Your task to perform on an android device: What's the US dollar exchange rate against the Australian Dollar? Image 0: 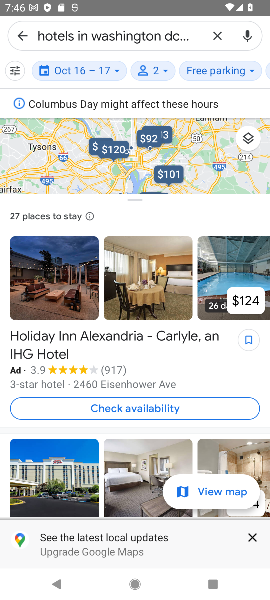
Step 0: press home button
Your task to perform on an android device: What's the US dollar exchange rate against the Australian Dollar? Image 1: 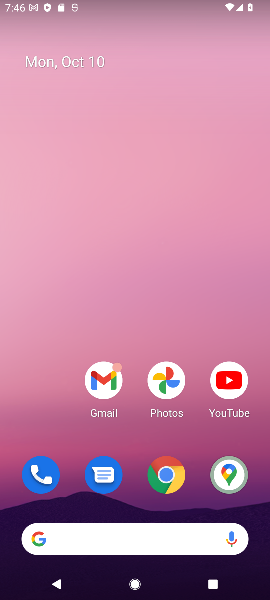
Step 1: click (174, 484)
Your task to perform on an android device: What's the US dollar exchange rate against the Australian Dollar? Image 2: 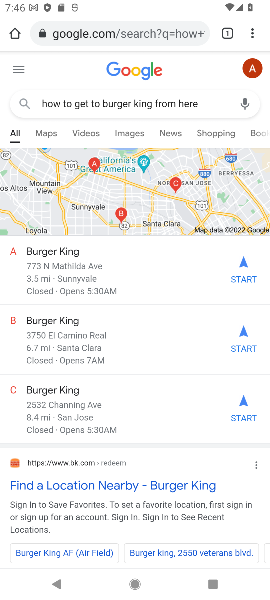
Step 2: click (110, 32)
Your task to perform on an android device: What's the US dollar exchange rate against the Australian Dollar? Image 3: 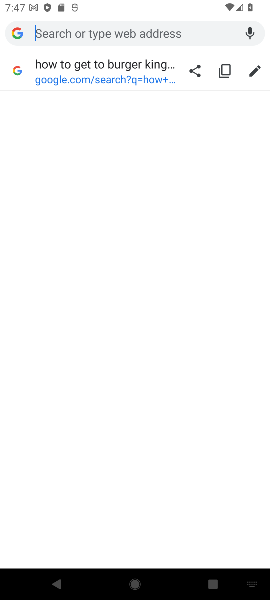
Step 3: type "What's the US dollar exchange rate against the Australian Dollar?"
Your task to perform on an android device: What's the US dollar exchange rate against the Australian Dollar? Image 4: 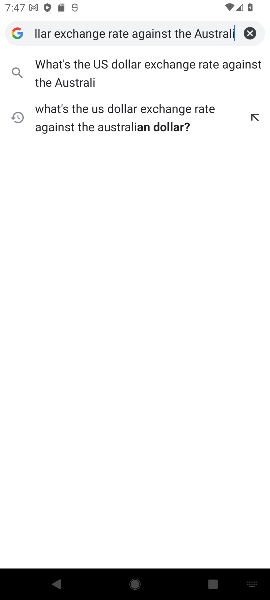
Step 4: click (162, 67)
Your task to perform on an android device: What's the US dollar exchange rate against the Australian Dollar? Image 5: 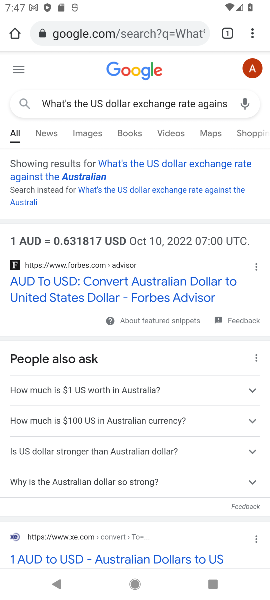
Step 5: task complete